Your task to perform on an android device: Open Google Maps Image 0: 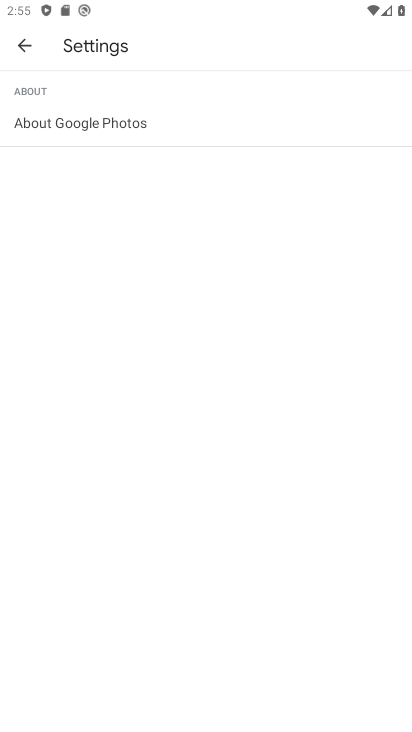
Step 0: press home button
Your task to perform on an android device: Open Google Maps Image 1: 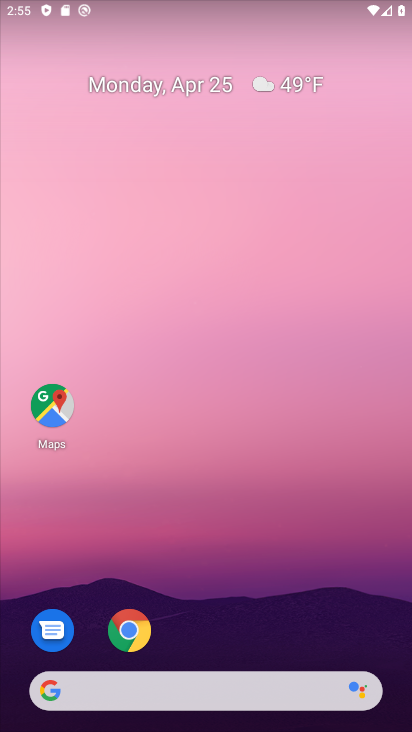
Step 1: click (54, 409)
Your task to perform on an android device: Open Google Maps Image 2: 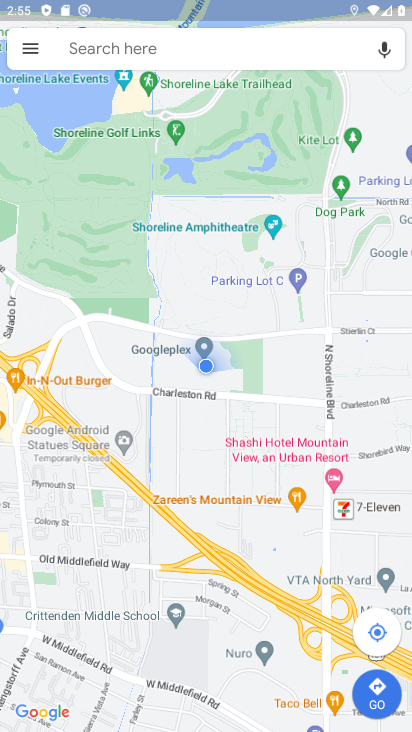
Step 2: task complete